Your task to perform on an android device: refresh tabs in the chrome app Image 0: 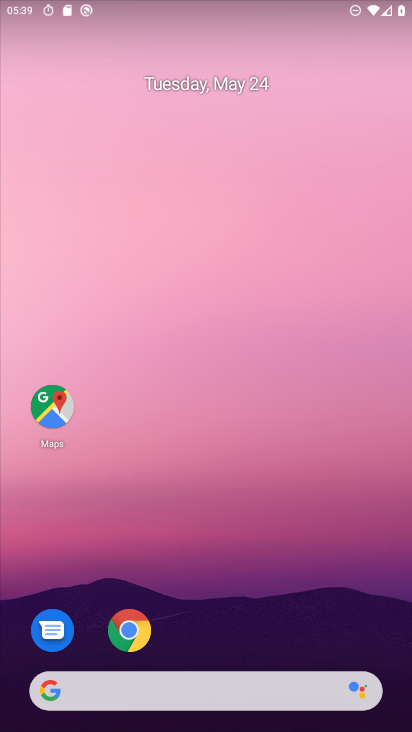
Step 0: click (125, 638)
Your task to perform on an android device: refresh tabs in the chrome app Image 1: 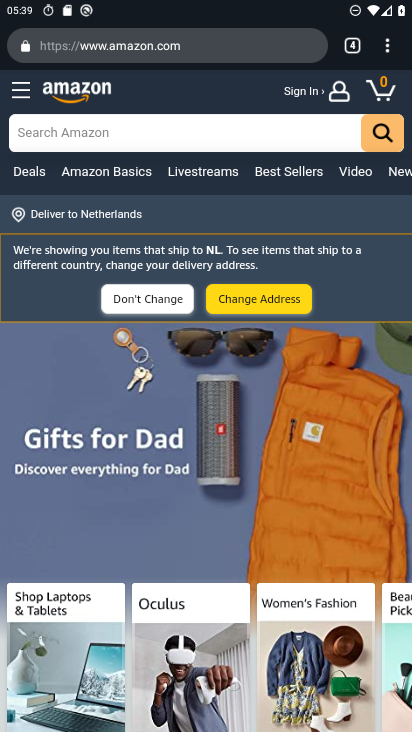
Step 1: click (397, 36)
Your task to perform on an android device: refresh tabs in the chrome app Image 2: 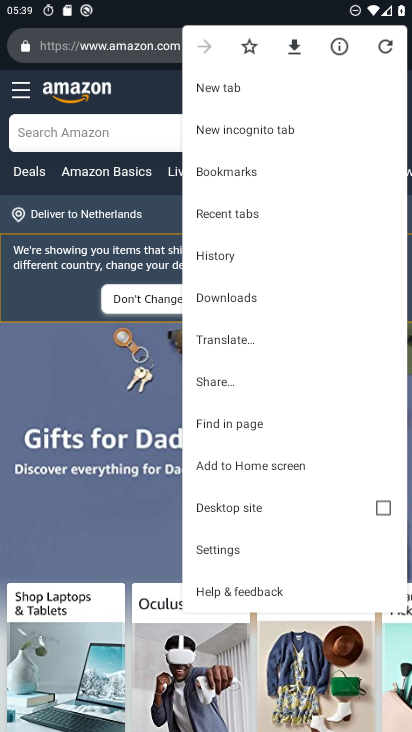
Step 2: click (390, 47)
Your task to perform on an android device: refresh tabs in the chrome app Image 3: 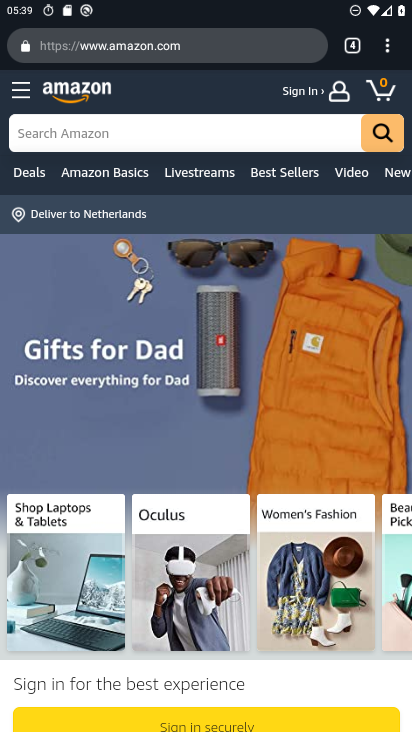
Step 3: task complete